Your task to perform on an android device: delete a single message in the gmail app Image 0: 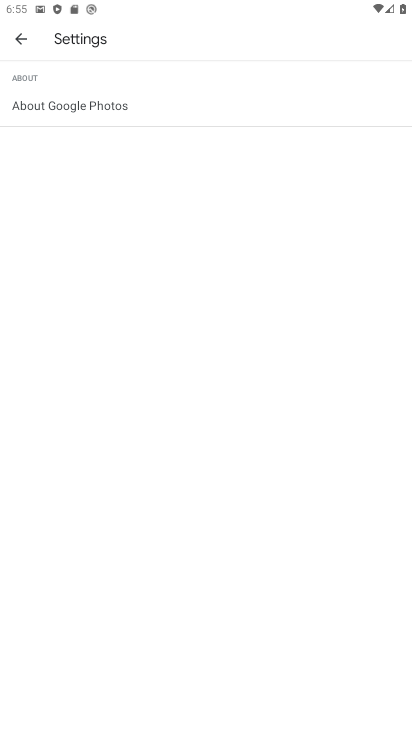
Step 0: press home button
Your task to perform on an android device: delete a single message in the gmail app Image 1: 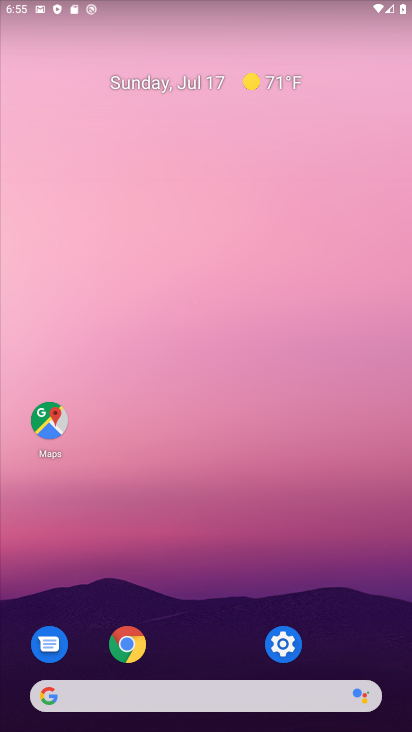
Step 1: drag from (225, 720) to (306, 105)
Your task to perform on an android device: delete a single message in the gmail app Image 2: 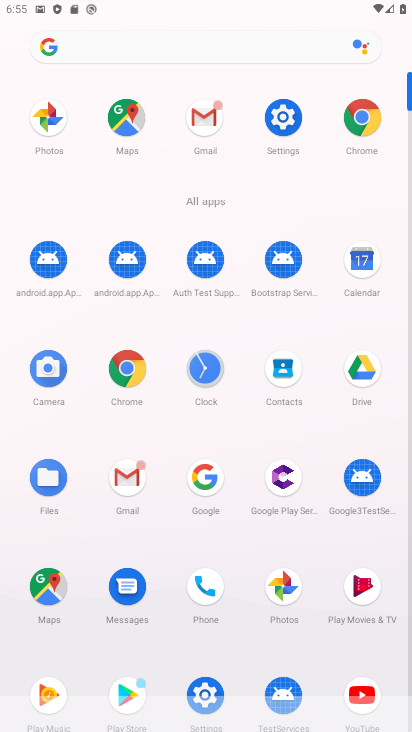
Step 2: click (204, 122)
Your task to perform on an android device: delete a single message in the gmail app Image 3: 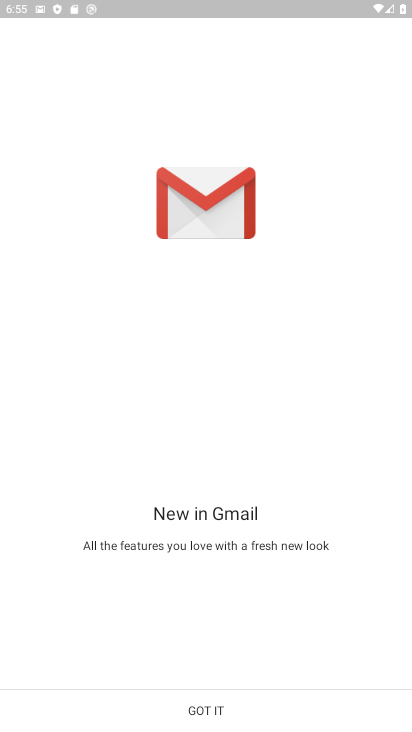
Step 3: click (201, 703)
Your task to perform on an android device: delete a single message in the gmail app Image 4: 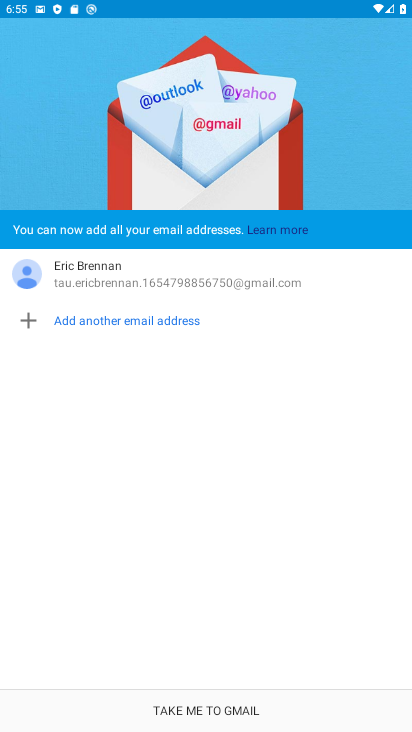
Step 4: click (201, 703)
Your task to perform on an android device: delete a single message in the gmail app Image 5: 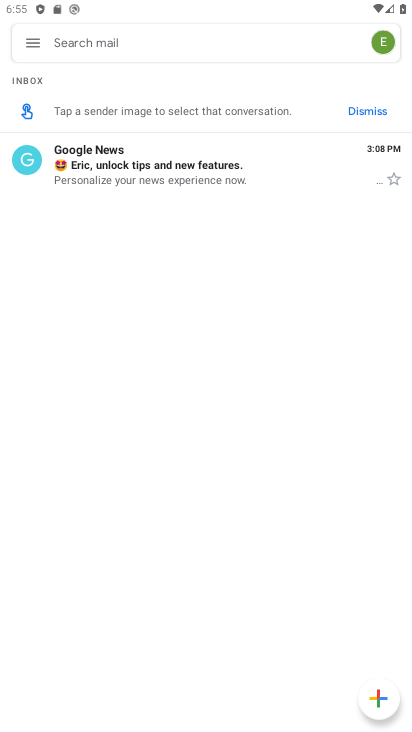
Step 5: click (203, 162)
Your task to perform on an android device: delete a single message in the gmail app Image 6: 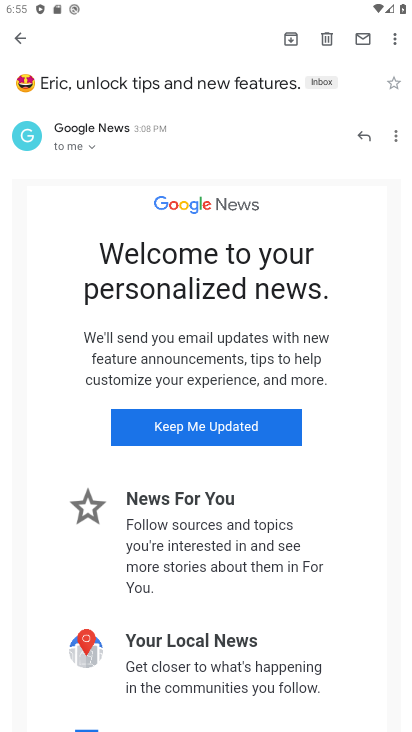
Step 6: click (321, 40)
Your task to perform on an android device: delete a single message in the gmail app Image 7: 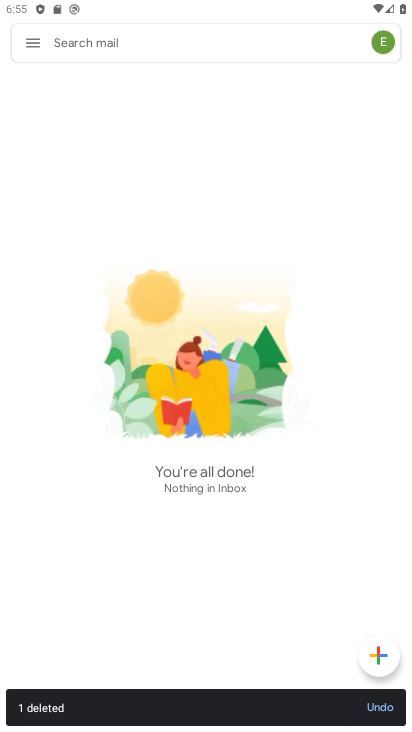
Step 7: task complete